Your task to perform on an android device: turn off wifi Image 0: 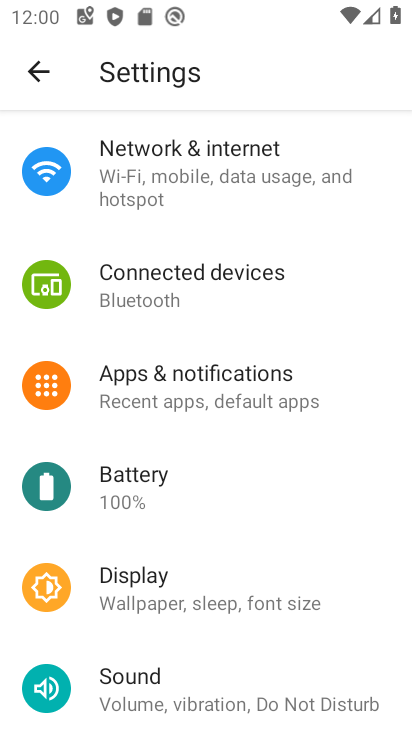
Step 0: click (251, 176)
Your task to perform on an android device: turn off wifi Image 1: 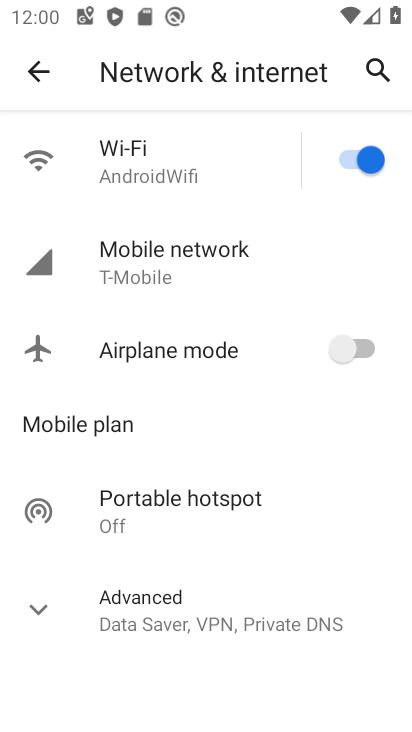
Step 1: click (358, 170)
Your task to perform on an android device: turn off wifi Image 2: 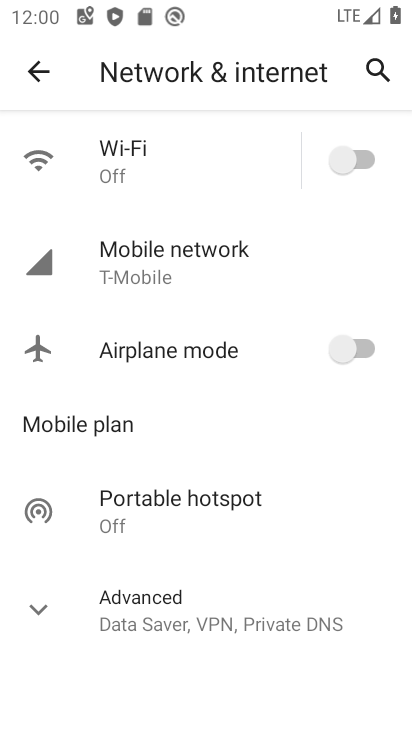
Step 2: task complete